Your task to perform on an android device: turn on wifi Image 0: 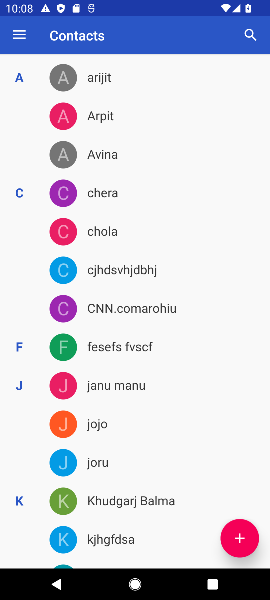
Step 0: press home button
Your task to perform on an android device: turn on wifi Image 1: 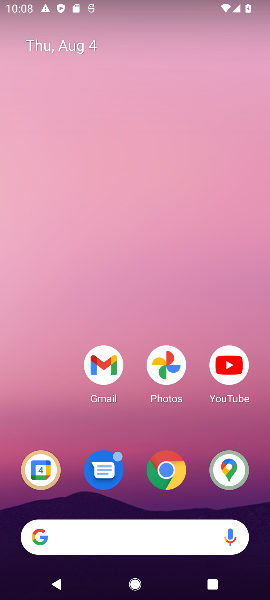
Step 1: drag from (138, 427) to (138, 85)
Your task to perform on an android device: turn on wifi Image 2: 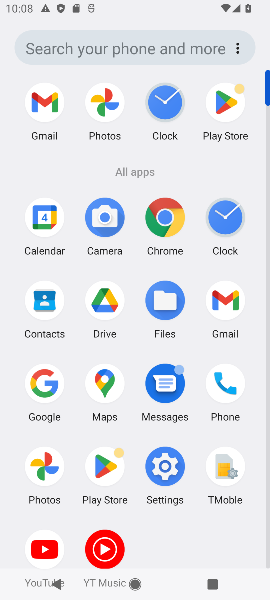
Step 2: click (167, 470)
Your task to perform on an android device: turn on wifi Image 3: 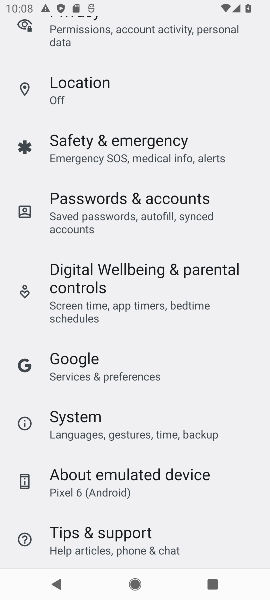
Step 3: drag from (172, 114) to (195, 357)
Your task to perform on an android device: turn on wifi Image 4: 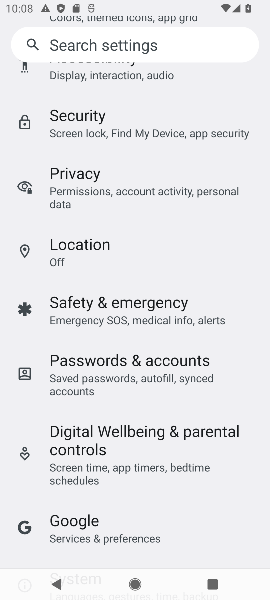
Step 4: drag from (181, 142) to (202, 390)
Your task to perform on an android device: turn on wifi Image 5: 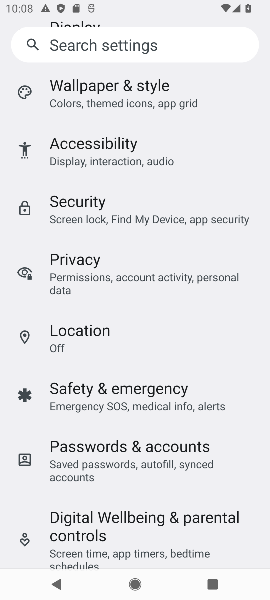
Step 5: drag from (150, 94) to (173, 256)
Your task to perform on an android device: turn on wifi Image 6: 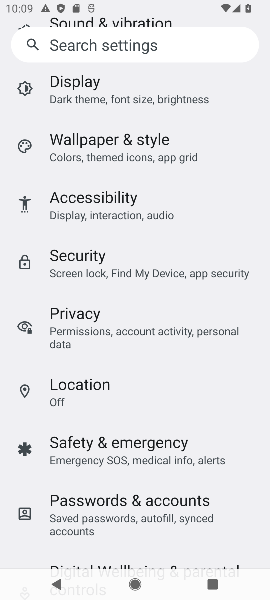
Step 6: drag from (179, 128) to (171, 358)
Your task to perform on an android device: turn on wifi Image 7: 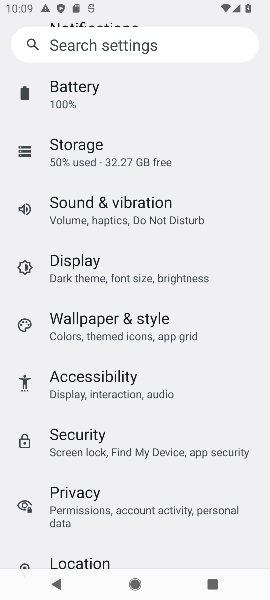
Step 7: drag from (142, 140) to (160, 412)
Your task to perform on an android device: turn on wifi Image 8: 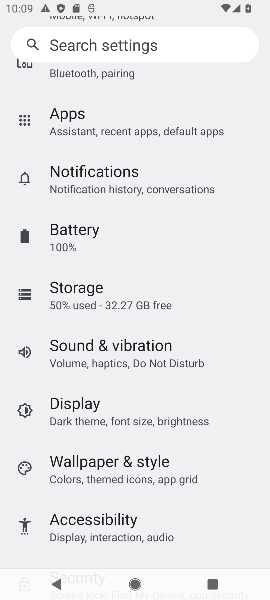
Step 8: drag from (151, 128) to (163, 382)
Your task to perform on an android device: turn on wifi Image 9: 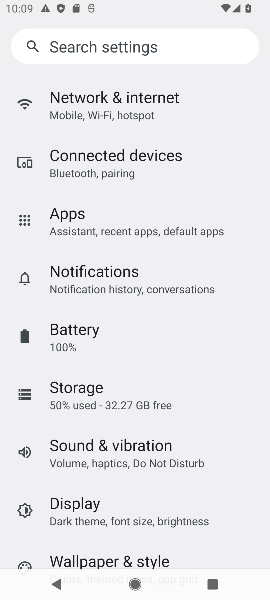
Step 9: click (140, 114)
Your task to perform on an android device: turn on wifi Image 10: 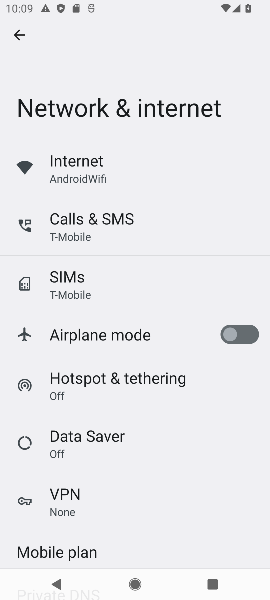
Step 10: click (88, 170)
Your task to perform on an android device: turn on wifi Image 11: 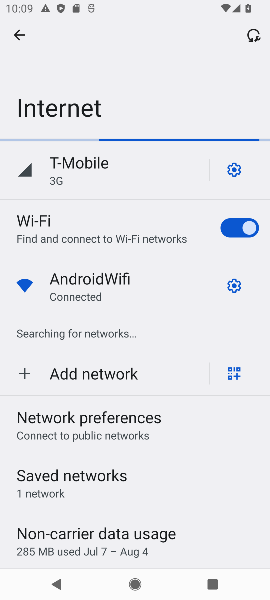
Step 11: task complete